Your task to perform on an android device: turn off translation in the chrome app Image 0: 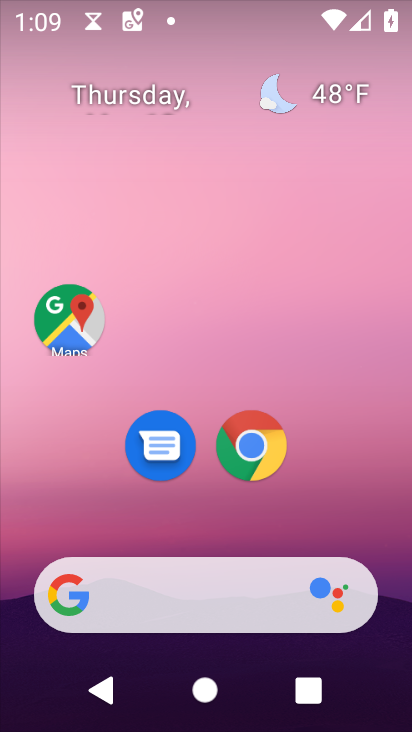
Step 0: click (246, 462)
Your task to perform on an android device: turn off translation in the chrome app Image 1: 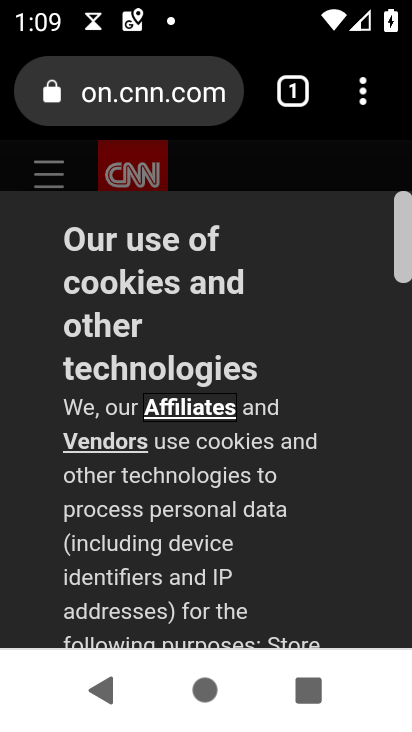
Step 1: click (371, 85)
Your task to perform on an android device: turn off translation in the chrome app Image 2: 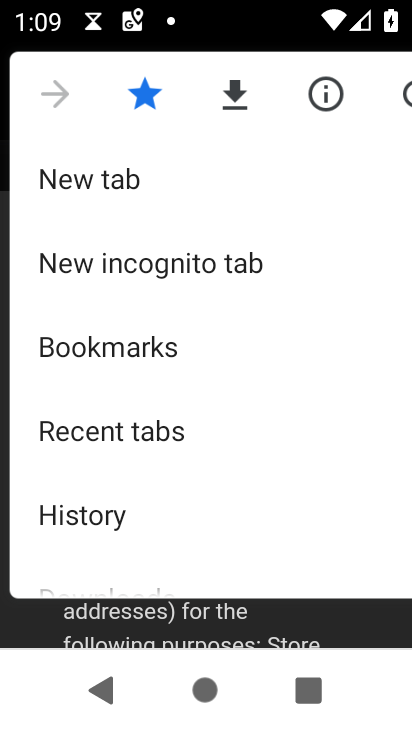
Step 2: drag from (249, 508) to (242, 228)
Your task to perform on an android device: turn off translation in the chrome app Image 3: 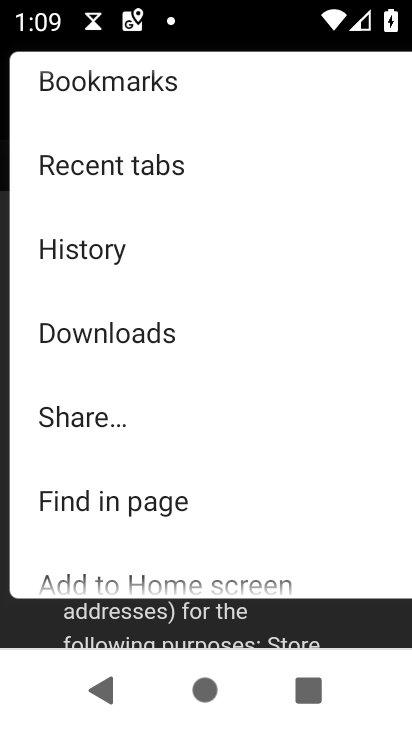
Step 3: drag from (262, 471) to (275, 165)
Your task to perform on an android device: turn off translation in the chrome app Image 4: 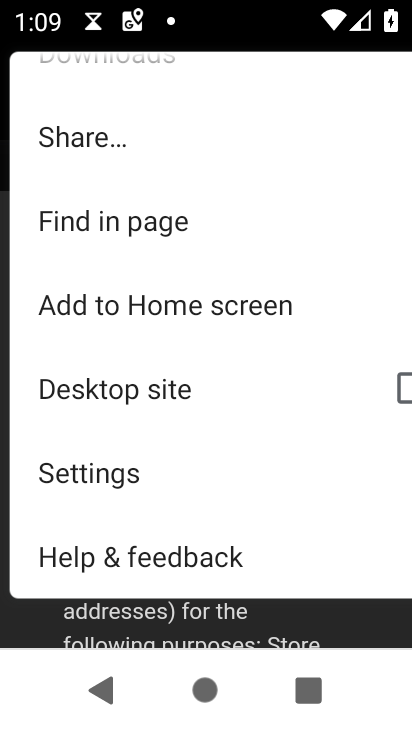
Step 4: click (130, 470)
Your task to perform on an android device: turn off translation in the chrome app Image 5: 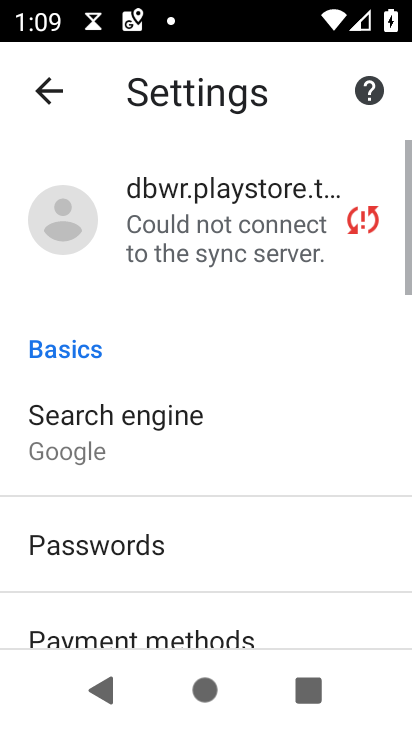
Step 5: drag from (244, 566) to (260, 185)
Your task to perform on an android device: turn off translation in the chrome app Image 6: 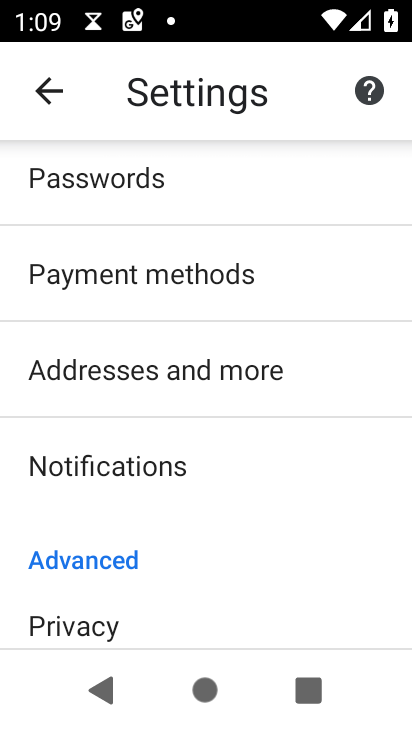
Step 6: drag from (247, 551) to (264, 238)
Your task to perform on an android device: turn off translation in the chrome app Image 7: 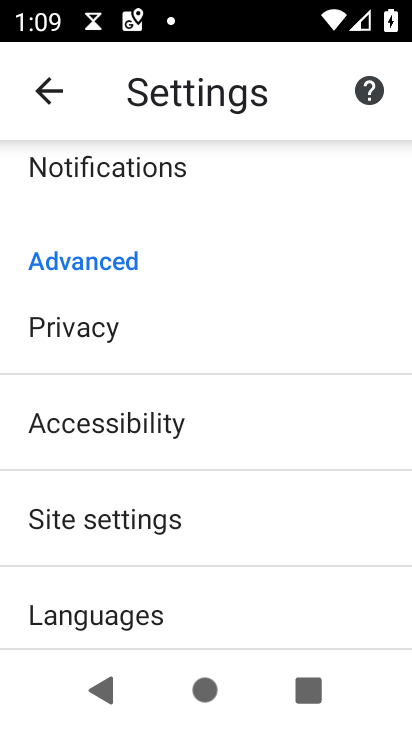
Step 7: click (200, 613)
Your task to perform on an android device: turn off translation in the chrome app Image 8: 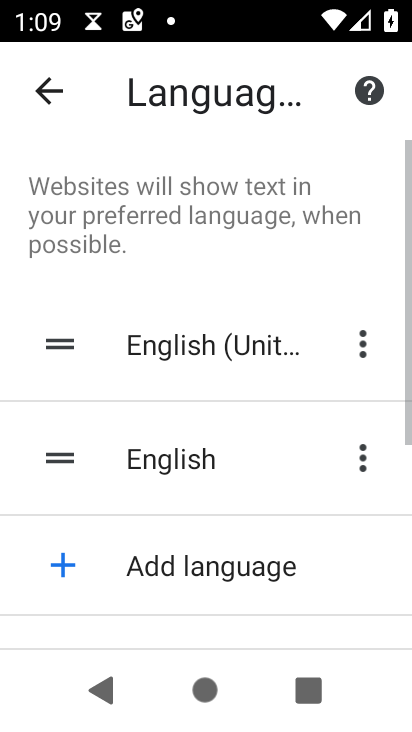
Step 8: drag from (244, 536) to (266, 221)
Your task to perform on an android device: turn off translation in the chrome app Image 9: 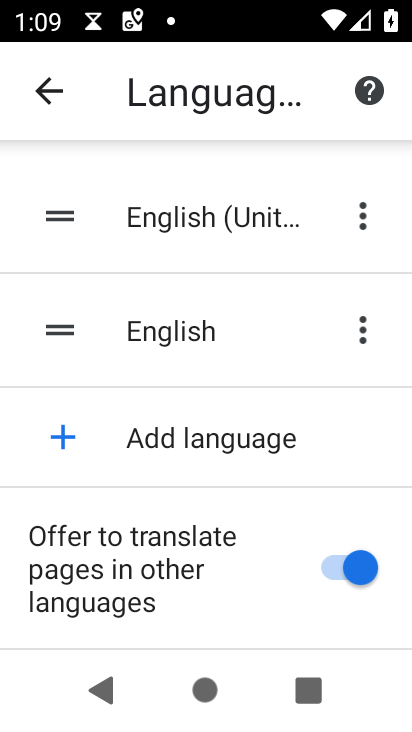
Step 9: click (327, 574)
Your task to perform on an android device: turn off translation in the chrome app Image 10: 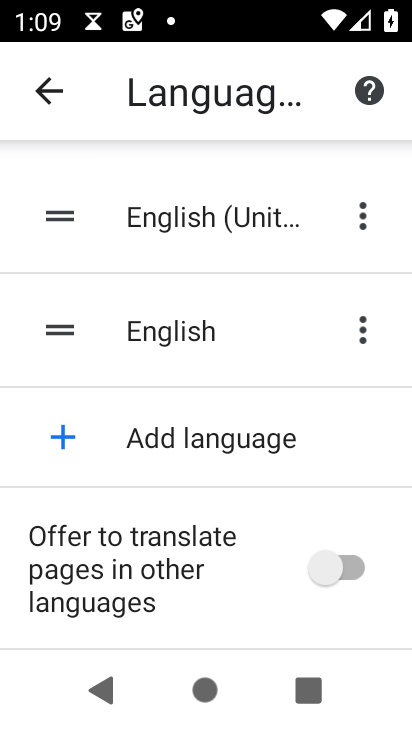
Step 10: task complete